Your task to perform on an android device: find which apps use the phone's location Image 0: 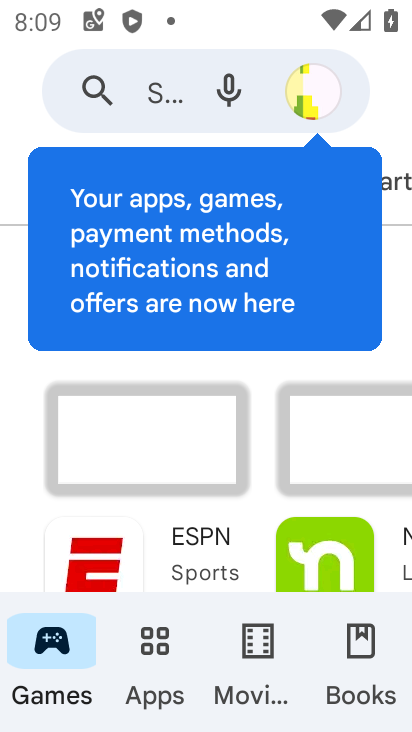
Step 0: press home button
Your task to perform on an android device: find which apps use the phone's location Image 1: 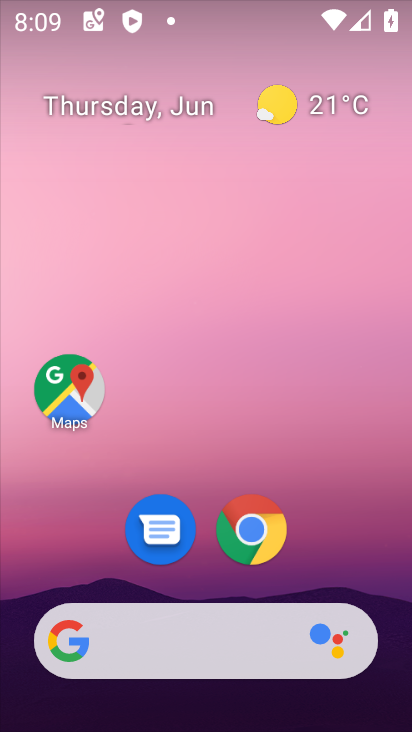
Step 1: drag from (334, 531) to (213, 94)
Your task to perform on an android device: find which apps use the phone's location Image 2: 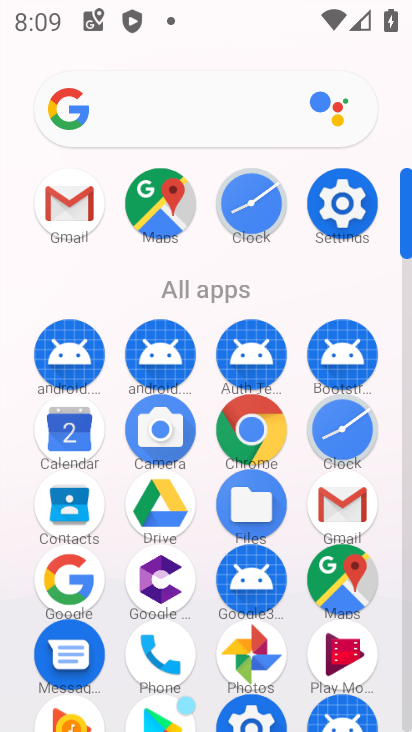
Step 2: click (336, 190)
Your task to perform on an android device: find which apps use the phone's location Image 3: 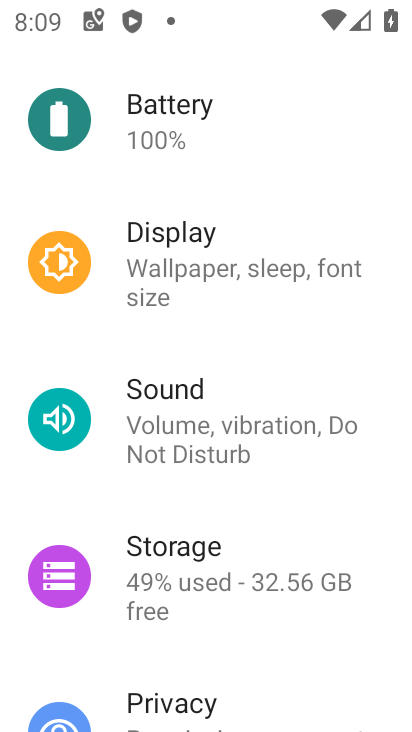
Step 3: drag from (250, 625) to (248, 237)
Your task to perform on an android device: find which apps use the phone's location Image 4: 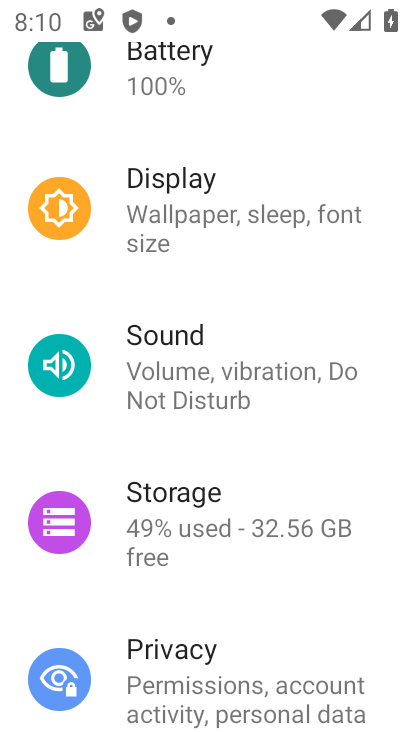
Step 4: drag from (248, 590) to (216, 211)
Your task to perform on an android device: find which apps use the phone's location Image 5: 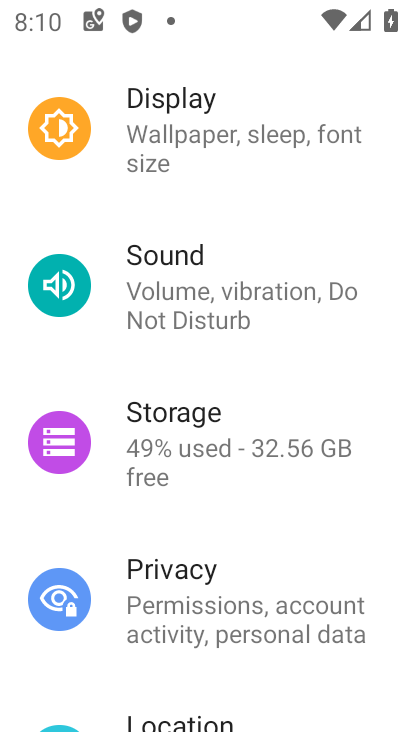
Step 5: drag from (238, 521) to (233, 208)
Your task to perform on an android device: find which apps use the phone's location Image 6: 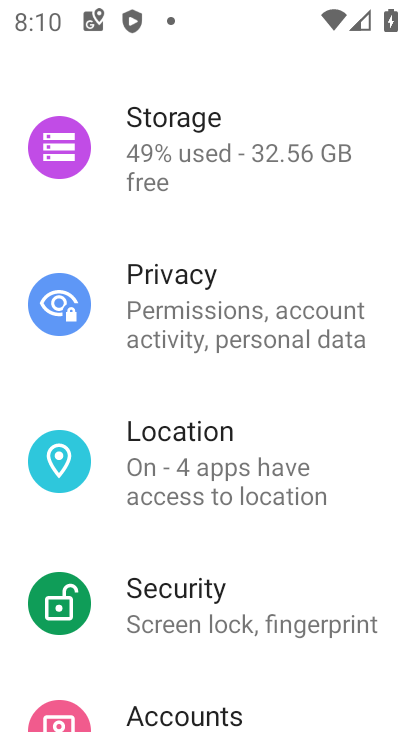
Step 6: click (165, 445)
Your task to perform on an android device: find which apps use the phone's location Image 7: 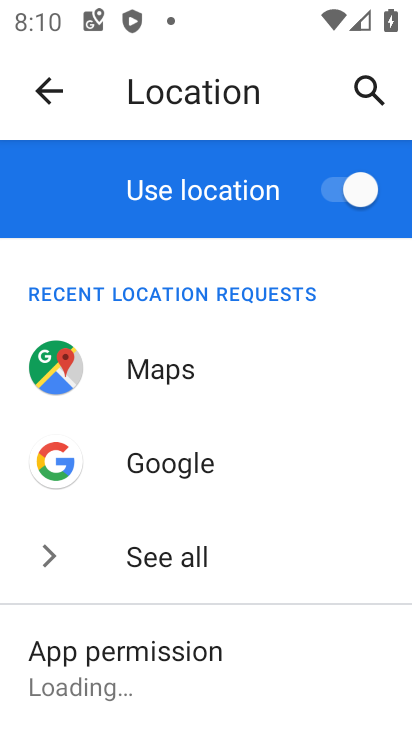
Step 7: click (157, 559)
Your task to perform on an android device: find which apps use the phone's location Image 8: 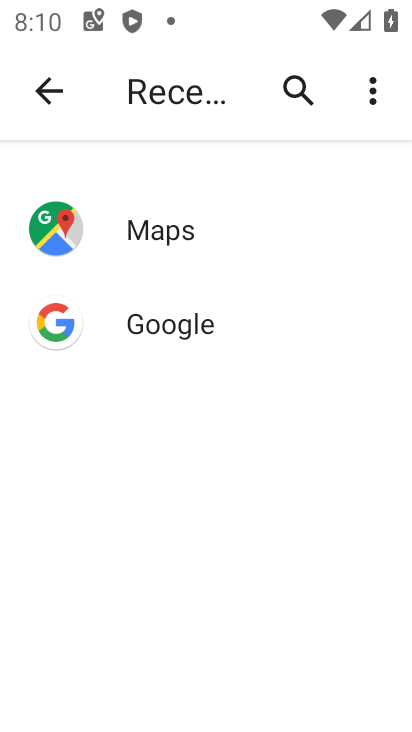
Step 8: task complete